Your task to perform on an android device: open app "Flipkart Online Shopping App" (install if not already installed) Image 0: 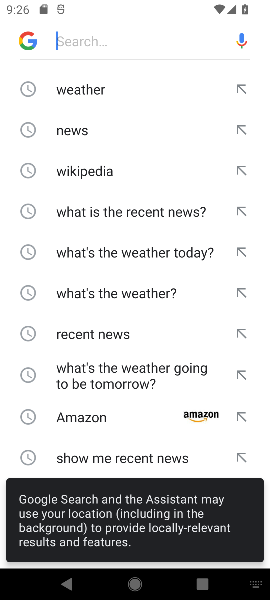
Step 0: press back button
Your task to perform on an android device: open app "Flipkart Online Shopping App" (install if not already installed) Image 1: 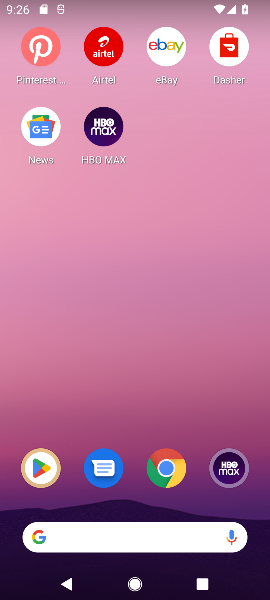
Step 1: click (38, 470)
Your task to perform on an android device: open app "Flipkart Online Shopping App" (install if not already installed) Image 2: 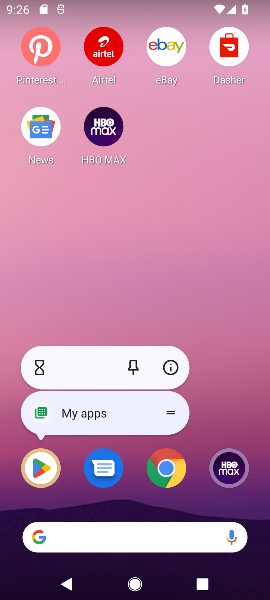
Step 2: click (40, 464)
Your task to perform on an android device: open app "Flipkart Online Shopping App" (install if not already installed) Image 3: 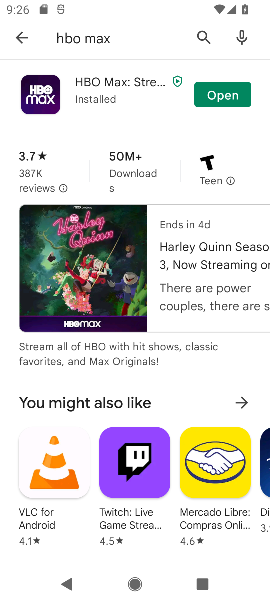
Step 3: click (200, 41)
Your task to perform on an android device: open app "Flipkart Online Shopping App" (install if not already installed) Image 4: 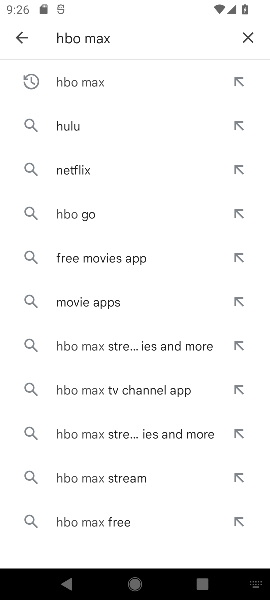
Step 4: click (245, 38)
Your task to perform on an android device: open app "Flipkart Online Shopping App" (install if not already installed) Image 5: 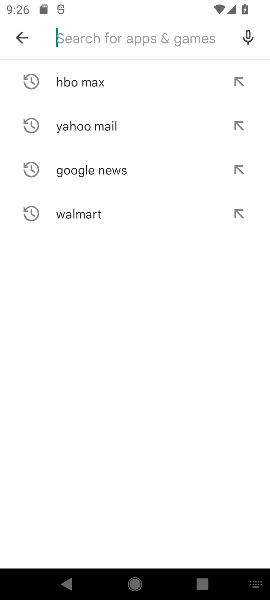
Step 5: click (82, 28)
Your task to perform on an android device: open app "Flipkart Online Shopping App" (install if not already installed) Image 6: 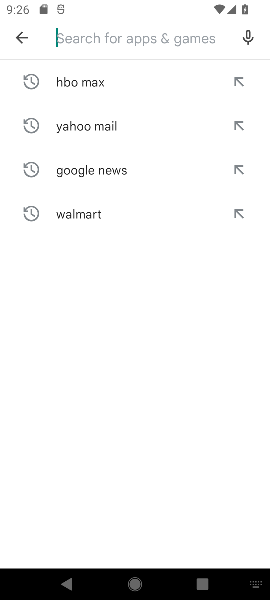
Step 6: type "flipkart "
Your task to perform on an android device: open app "Flipkart Online Shopping App" (install if not already installed) Image 7: 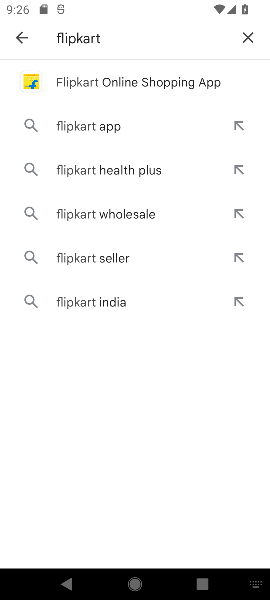
Step 7: click (92, 74)
Your task to perform on an android device: open app "Flipkart Online Shopping App" (install if not already installed) Image 8: 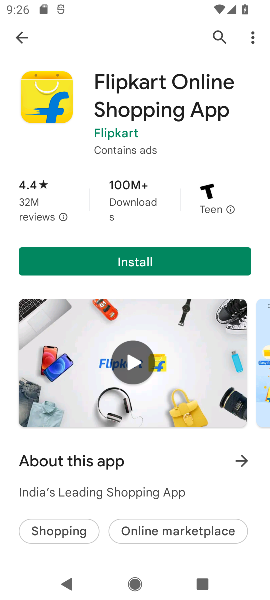
Step 8: click (155, 264)
Your task to perform on an android device: open app "Flipkart Online Shopping App" (install if not already installed) Image 9: 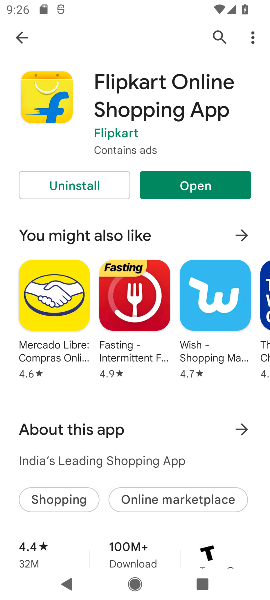
Step 9: click (225, 189)
Your task to perform on an android device: open app "Flipkart Online Shopping App" (install if not already installed) Image 10: 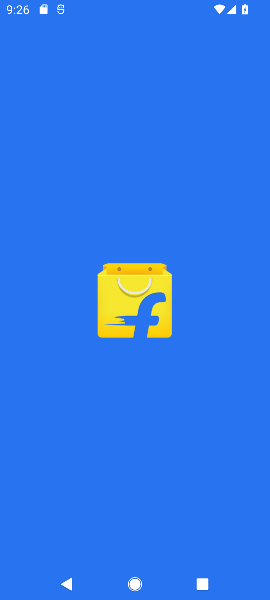
Step 10: task complete